Your task to perform on an android device: Open settings on Google Maps Image 0: 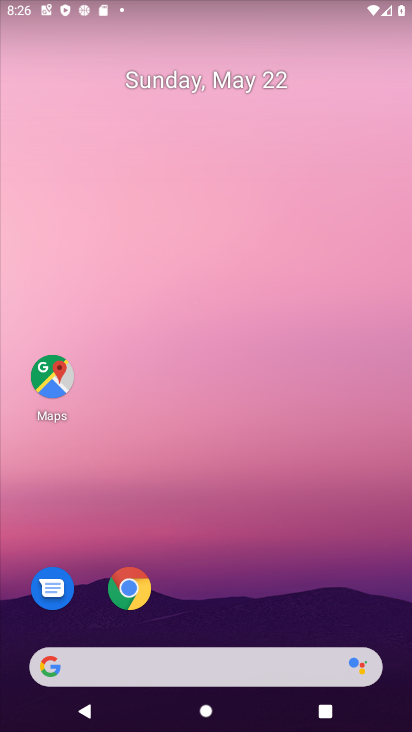
Step 0: press home button
Your task to perform on an android device: Open settings on Google Maps Image 1: 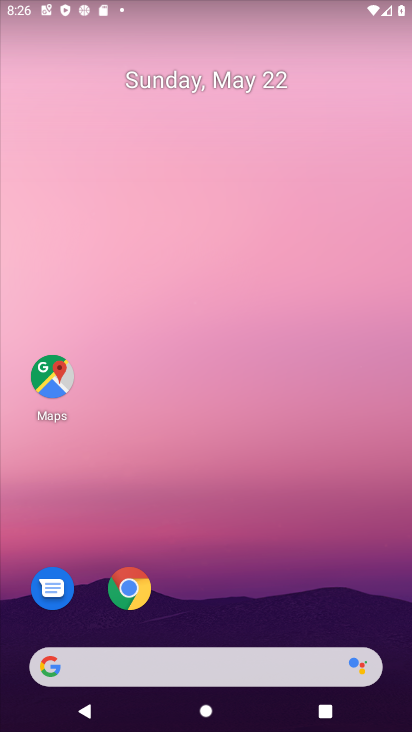
Step 1: click (41, 378)
Your task to perform on an android device: Open settings on Google Maps Image 2: 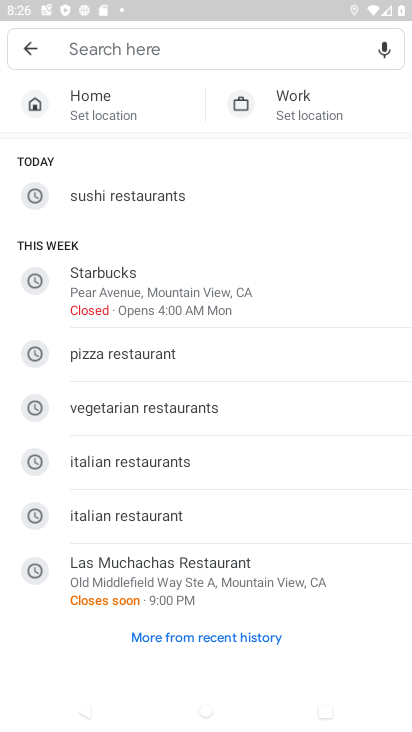
Step 2: click (25, 46)
Your task to perform on an android device: Open settings on Google Maps Image 3: 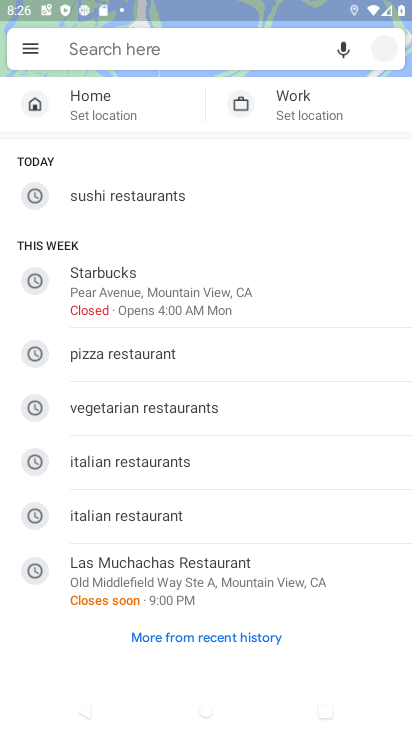
Step 3: click (22, 35)
Your task to perform on an android device: Open settings on Google Maps Image 4: 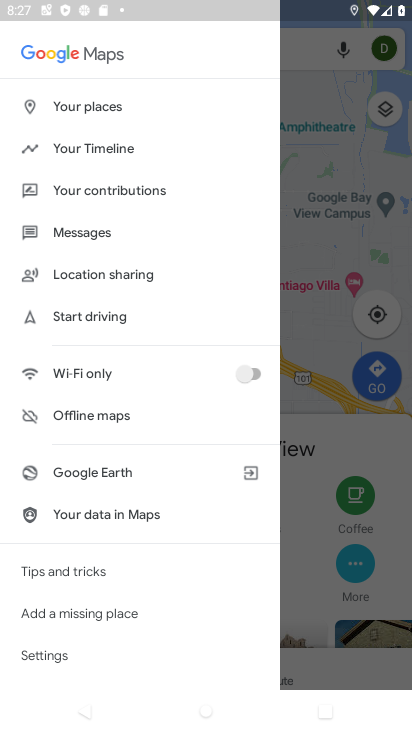
Step 4: drag from (158, 552) to (14, 182)
Your task to perform on an android device: Open settings on Google Maps Image 5: 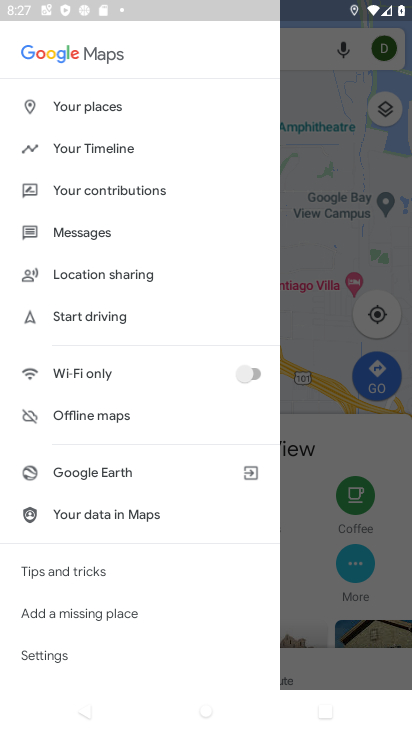
Step 5: drag from (135, 585) to (106, 223)
Your task to perform on an android device: Open settings on Google Maps Image 6: 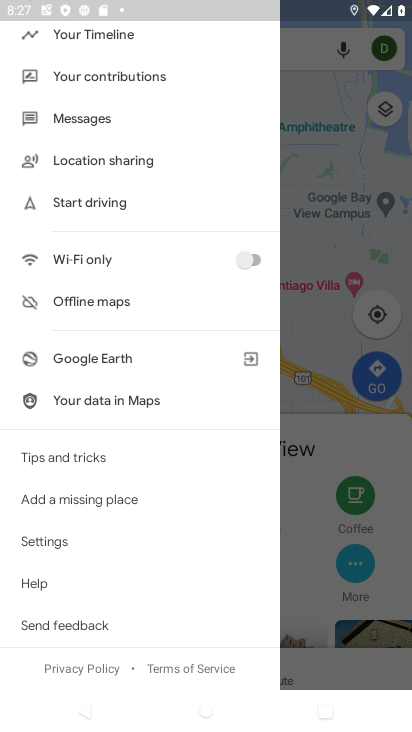
Step 6: drag from (19, 290) to (71, 699)
Your task to perform on an android device: Open settings on Google Maps Image 7: 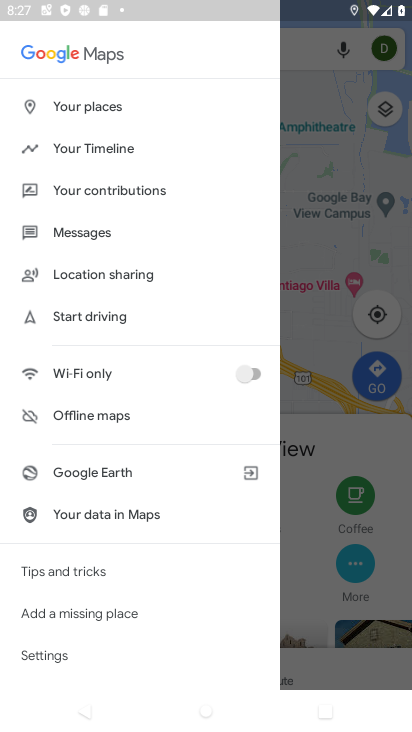
Step 7: drag from (12, 396) to (2, 633)
Your task to perform on an android device: Open settings on Google Maps Image 8: 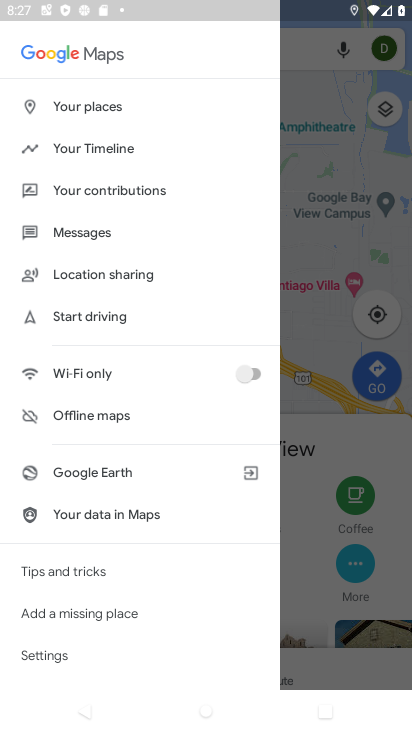
Step 8: click (50, 660)
Your task to perform on an android device: Open settings on Google Maps Image 9: 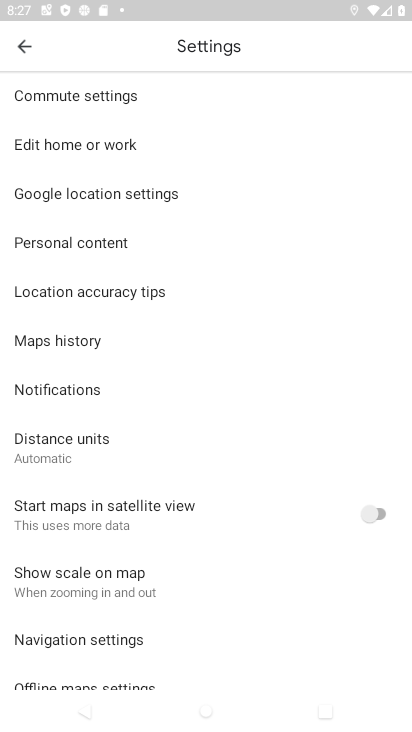
Step 9: task complete